Your task to perform on an android device: Search for Italian restaurants on Maps Image 0: 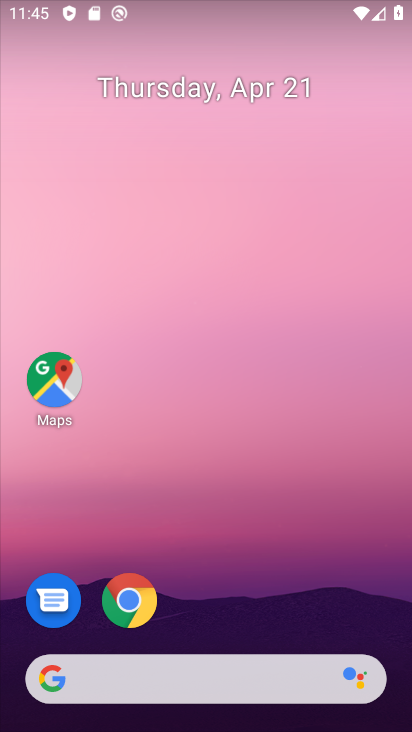
Step 0: drag from (366, 356) to (362, 254)
Your task to perform on an android device: Search for Italian restaurants on Maps Image 1: 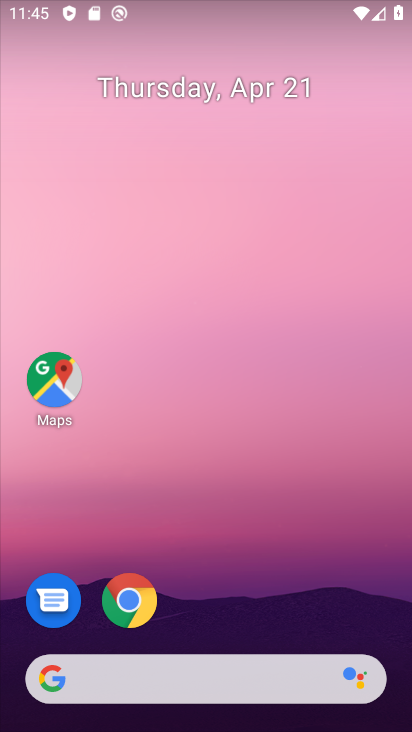
Step 1: drag from (350, 361) to (354, 91)
Your task to perform on an android device: Search for Italian restaurants on Maps Image 2: 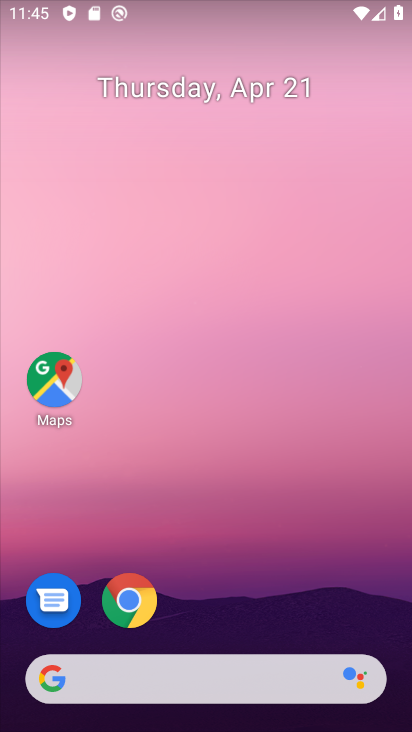
Step 2: click (381, 245)
Your task to perform on an android device: Search for Italian restaurants on Maps Image 3: 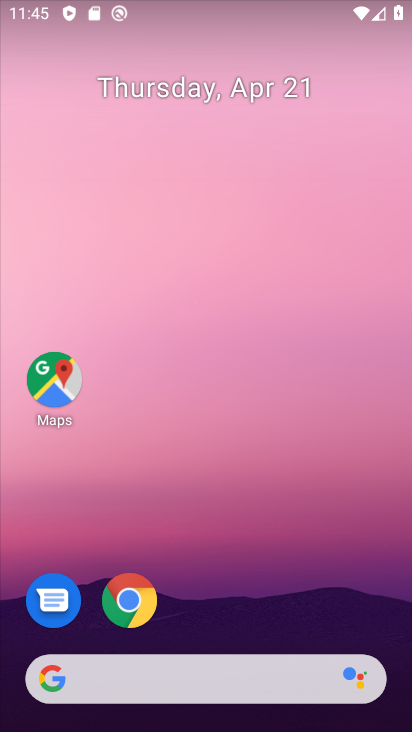
Step 3: drag from (397, 538) to (395, 373)
Your task to perform on an android device: Search for Italian restaurants on Maps Image 4: 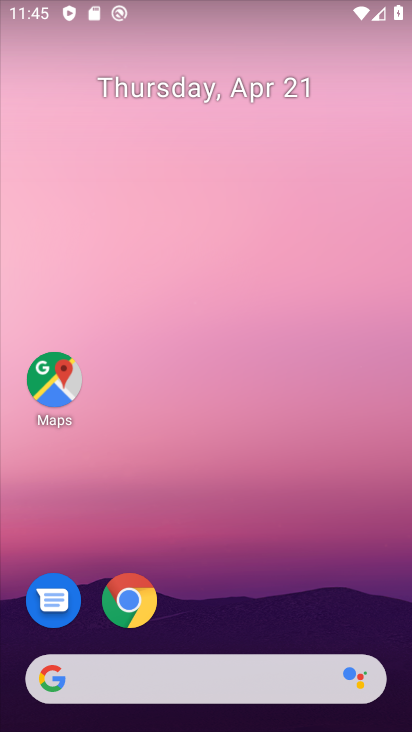
Step 4: drag from (397, 672) to (400, 285)
Your task to perform on an android device: Search for Italian restaurants on Maps Image 5: 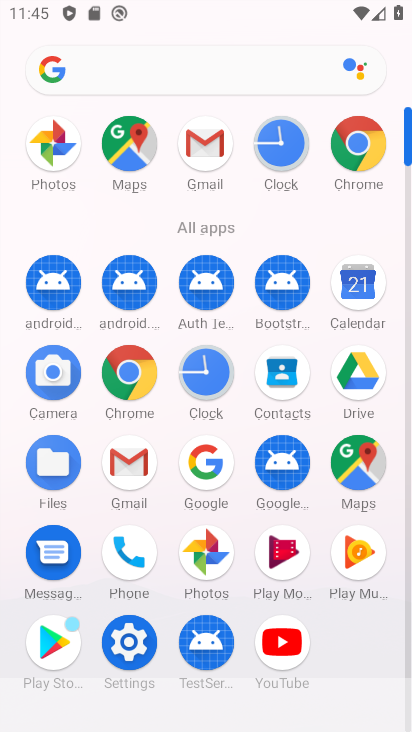
Step 5: click (360, 462)
Your task to perform on an android device: Search for Italian restaurants on Maps Image 6: 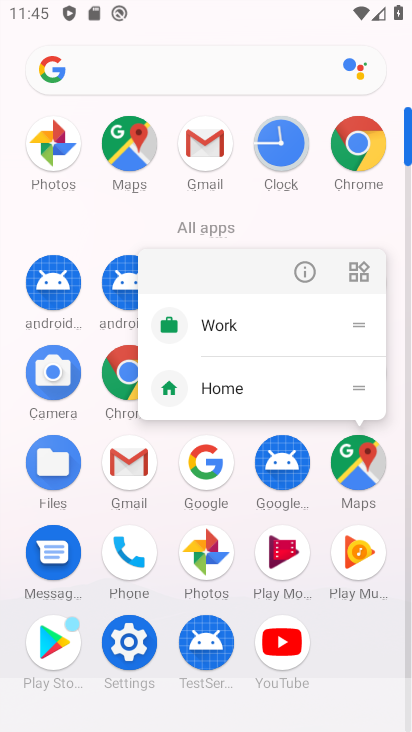
Step 6: click (360, 462)
Your task to perform on an android device: Search for Italian restaurants on Maps Image 7: 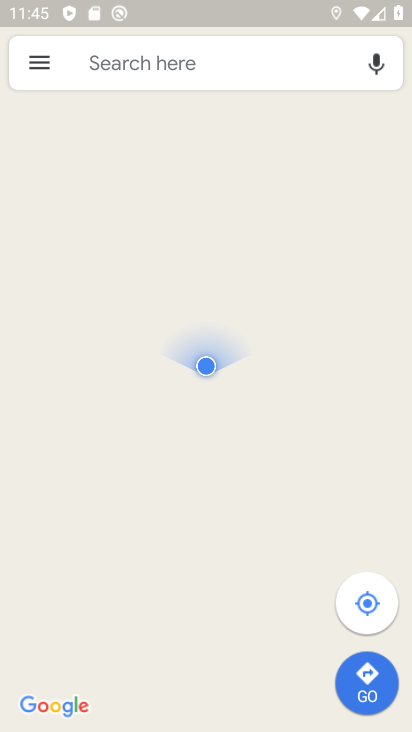
Step 7: click (99, 62)
Your task to perform on an android device: Search for Italian restaurants on Maps Image 8: 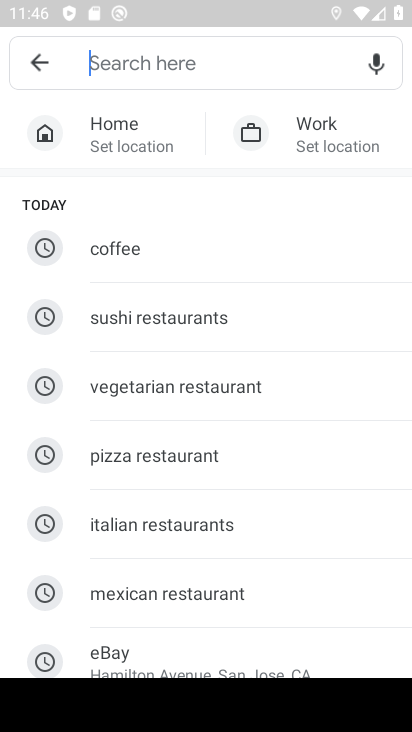
Step 8: type "Italian restaurants "
Your task to perform on an android device: Search for Italian restaurants on Maps Image 9: 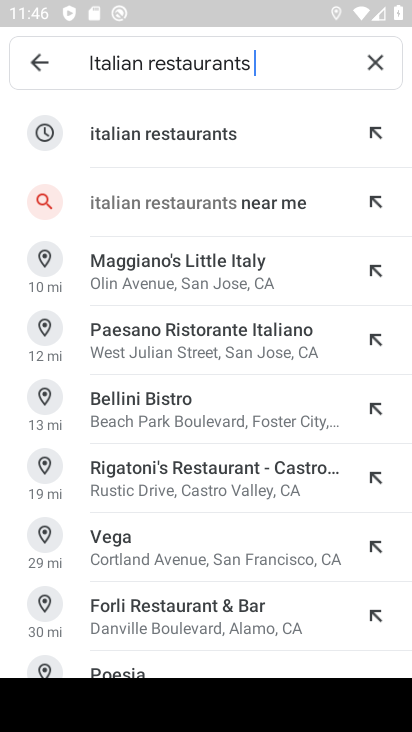
Step 9: click (173, 134)
Your task to perform on an android device: Search for Italian restaurants on Maps Image 10: 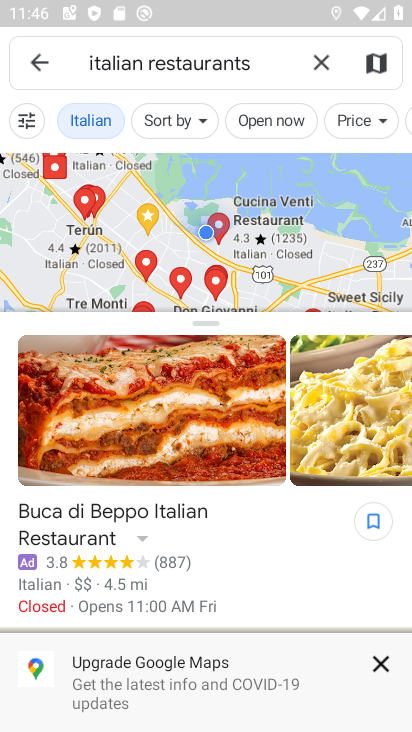
Step 10: task complete